Your task to perform on an android device: Set the phone to "Do not disturb". Image 0: 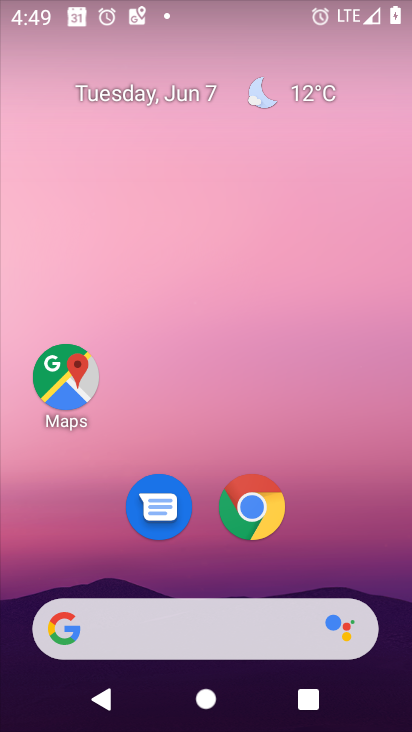
Step 0: drag from (330, 496) to (270, 20)
Your task to perform on an android device: Set the phone to "Do not disturb". Image 1: 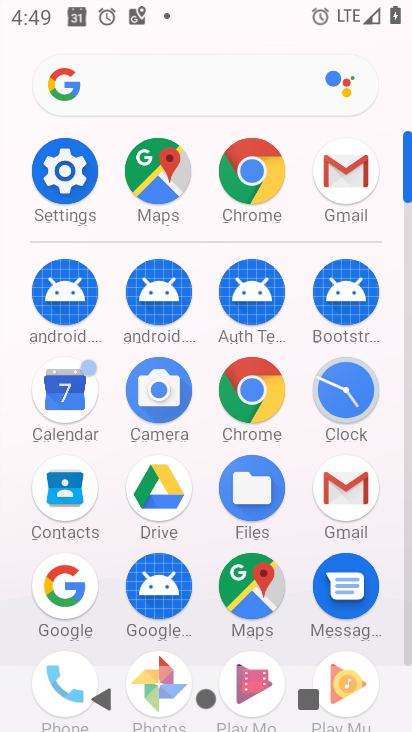
Step 1: drag from (14, 579) to (12, 206)
Your task to perform on an android device: Set the phone to "Do not disturb". Image 2: 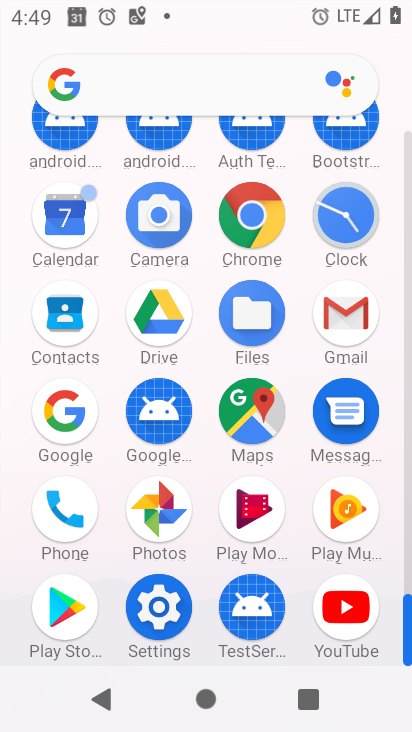
Step 2: click (161, 604)
Your task to perform on an android device: Set the phone to "Do not disturb". Image 3: 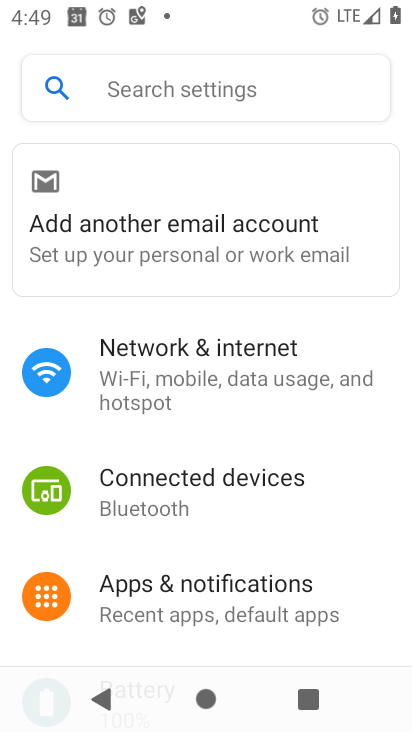
Step 3: drag from (250, 571) to (280, 193)
Your task to perform on an android device: Set the phone to "Do not disturb". Image 4: 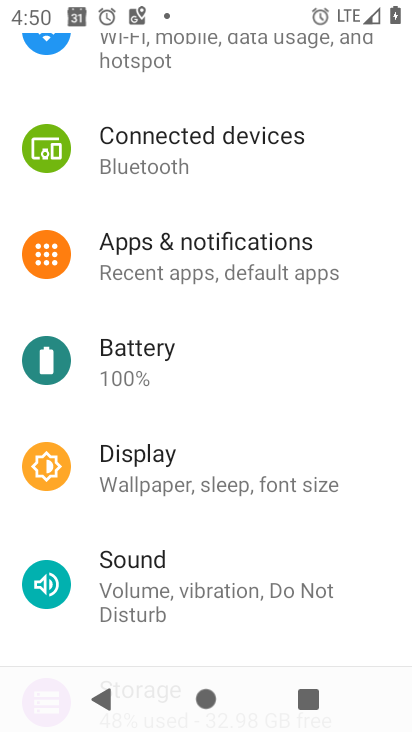
Step 4: drag from (288, 528) to (301, 183)
Your task to perform on an android device: Set the phone to "Do not disturb". Image 5: 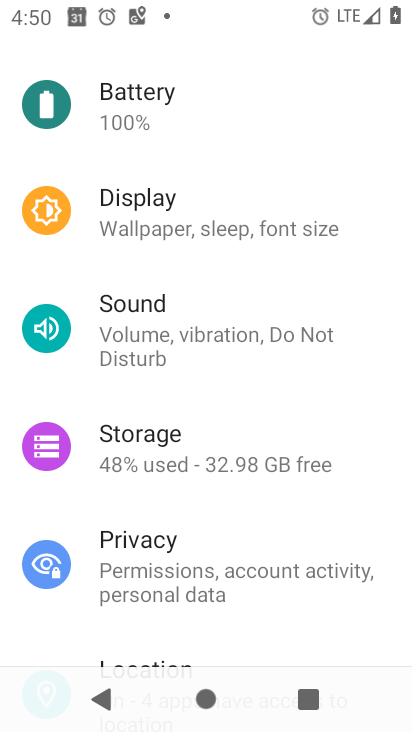
Step 5: drag from (244, 551) to (253, 179)
Your task to perform on an android device: Set the phone to "Do not disturb". Image 6: 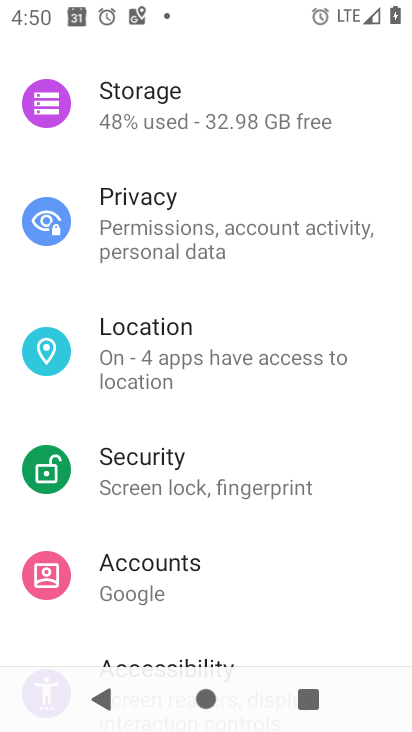
Step 6: drag from (224, 560) to (264, 197)
Your task to perform on an android device: Set the phone to "Do not disturb". Image 7: 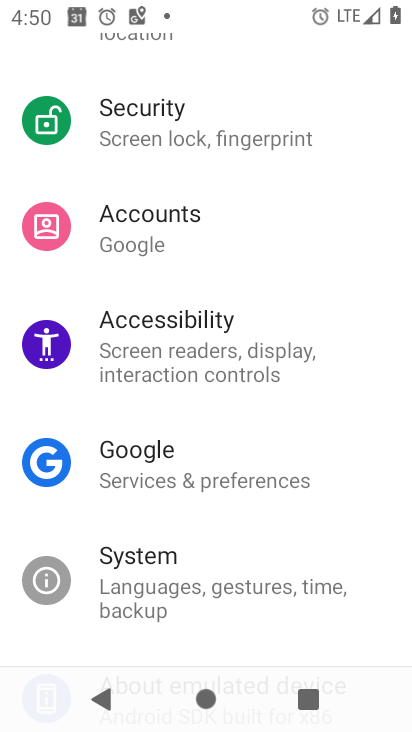
Step 7: drag from (268, 518) to (289, 209)
Your task to perform on an android device: Set the phone to "Do not disturb". Image 8: 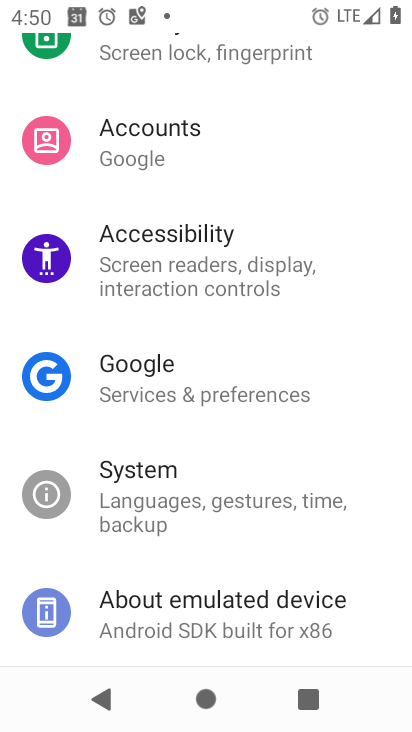
Step 8: drag from (285, 240) to (279, 621)
Your task to perform on an android device: Set the phone to "Do not disturb". Image 9: 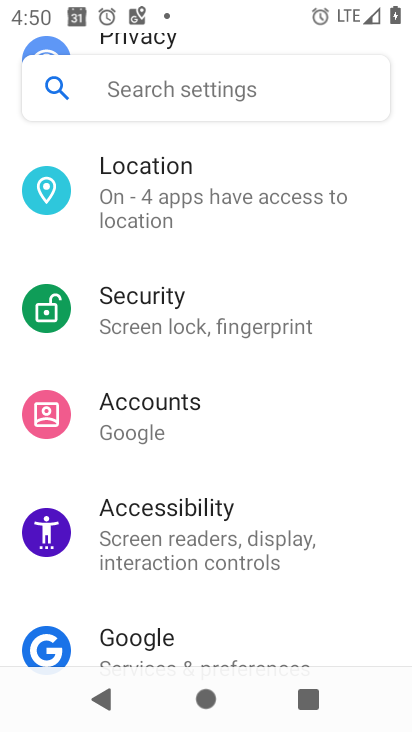
Step 9: drag from (273, 283) to (277, 584)
Your task to perform on an android device: Set the phone to "Do not disturb". Image 10: 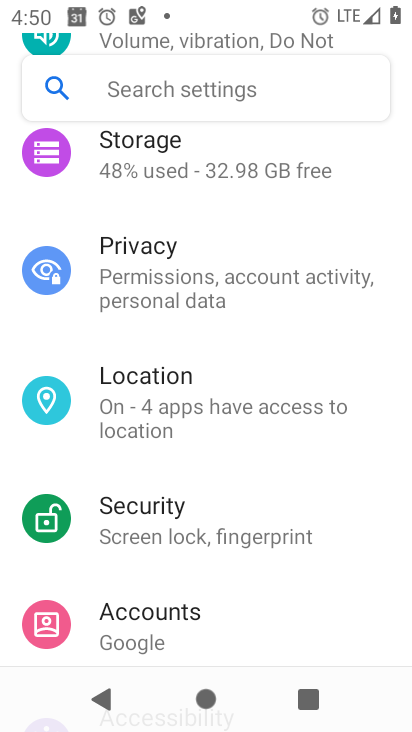
Step 10: drag from (252, 558) to (286, 211)
Your task to perform on an android device: Set the phone to "Do not disturb". Image 11: 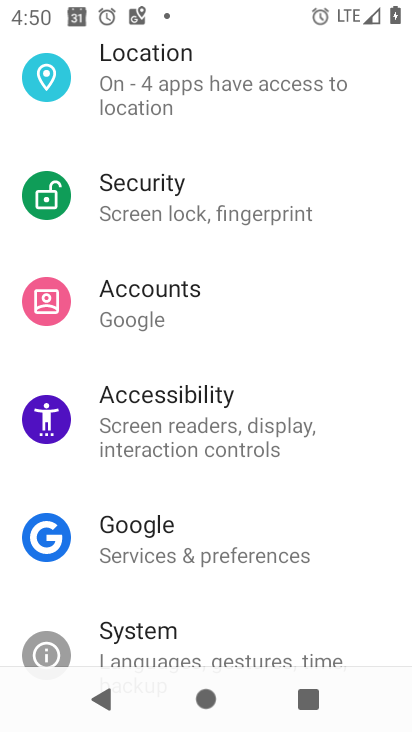
Step 11: drag from (258, 530) to (279, 213)
Your task to perform on an android device: Set the phone to "Do not disturb". Image 12: 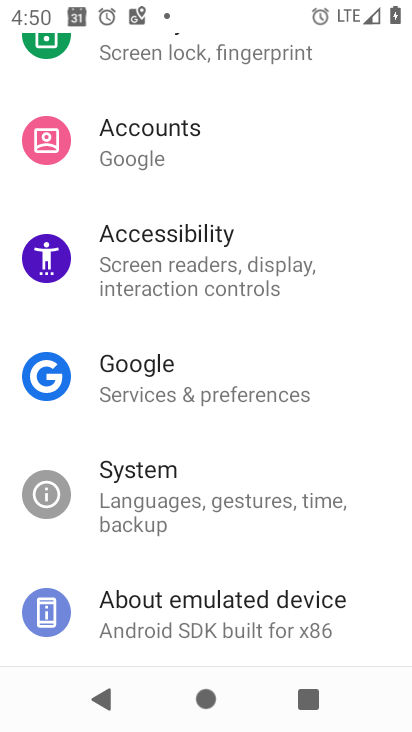
Step 12: drag from (264, 523) to (279, 235)
Your task to perform on an android device: Set the phone to "Do not disturb". Image 13: 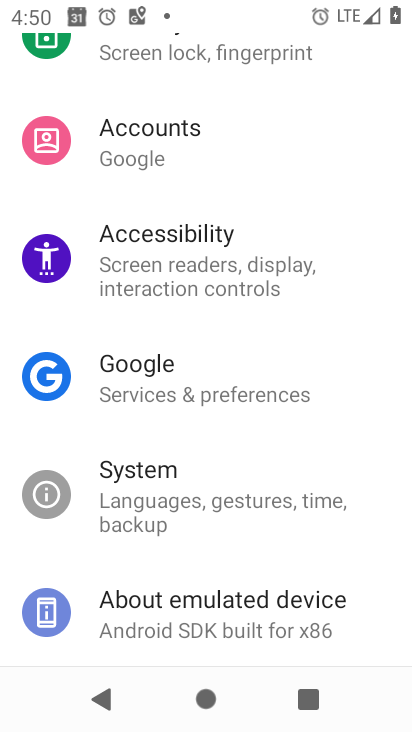
Step 13: drag from (277, 185) to (274, 568)
Your task to perform on an android device: Set the phone to "Do not disturb". Image 14: 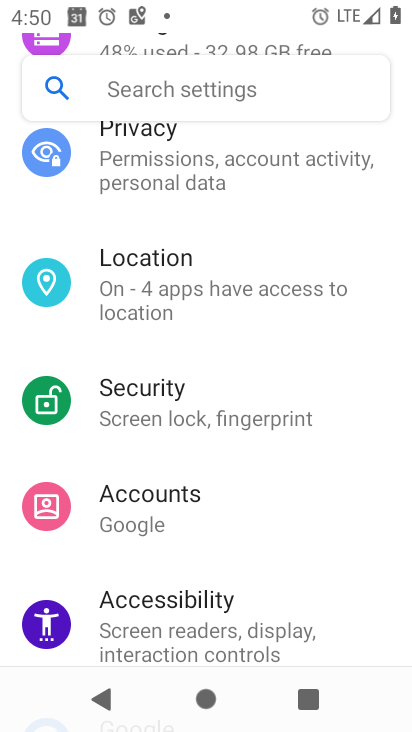
Step 14: drag from (251, 316) to (259, 627)
Your task to perform on an android device: Set the phone to "Do not disturb". Image 15: 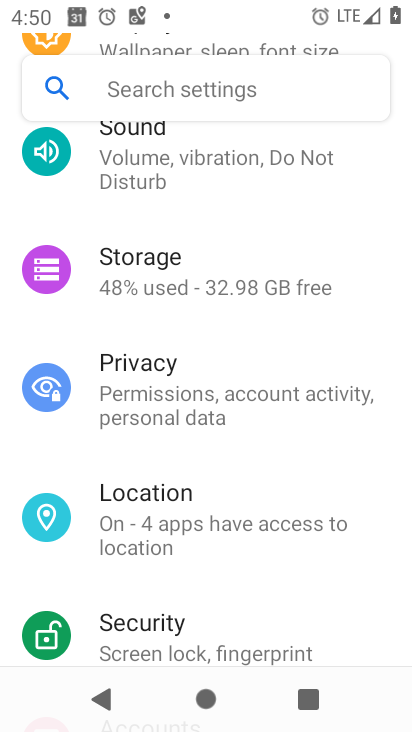
Step 15: drag from (273, 297) to (273, 605)
Your task to perform on an android device: Set the phone to "Do not disturb". Image 16: 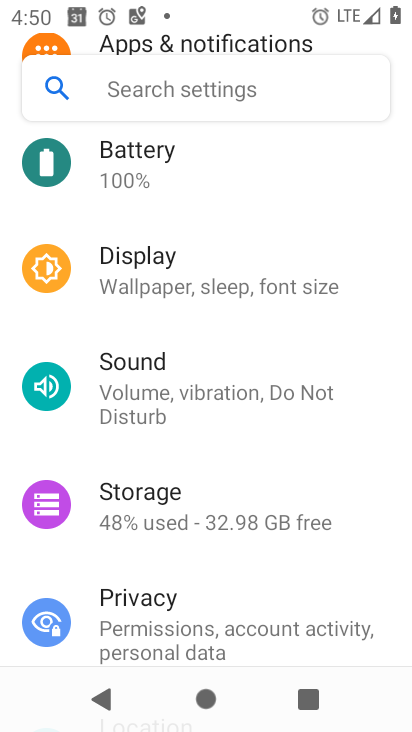
Step 16: click (230, 375)
Your task to perform on an android device: Set the phone to "Do not disturb". Image 17: 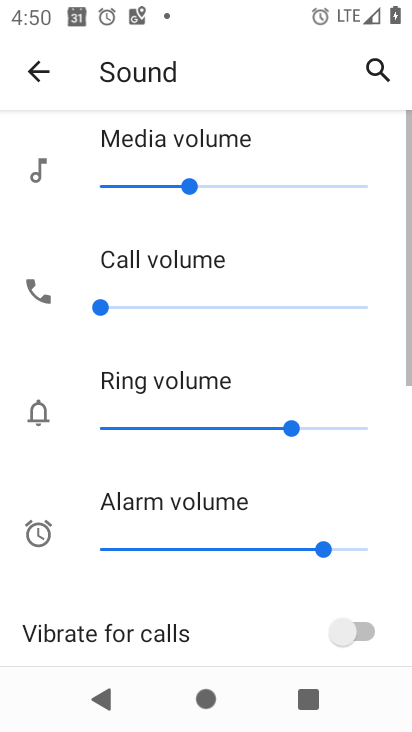
Step 17: drag from (221, 491) to (244, 164)
Your task to perform on an android device: Set the phone to "Do not disturb". Image 18: 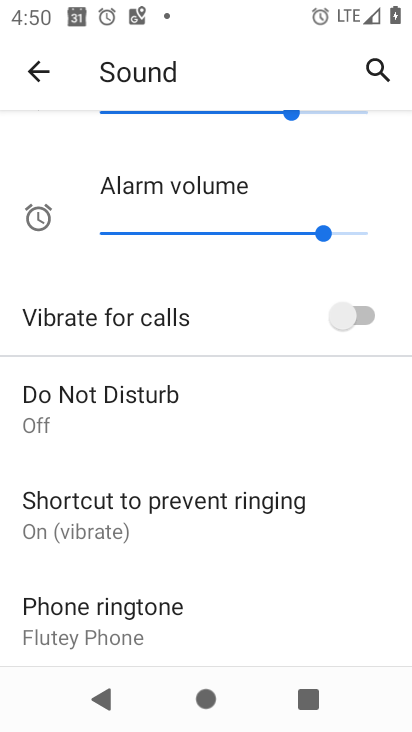
Step 18: drag from (221, 547) to (232, 315)
Your task to perform on an android device: Set the phone to "Do not disturb". Image 19: 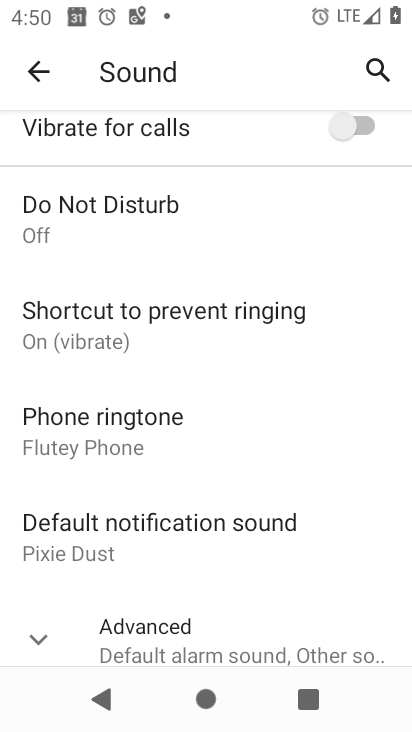
Step 19: click (153, 196)
Your task to perform on an android device: Set the phone to "Do not disturb". Image 20: 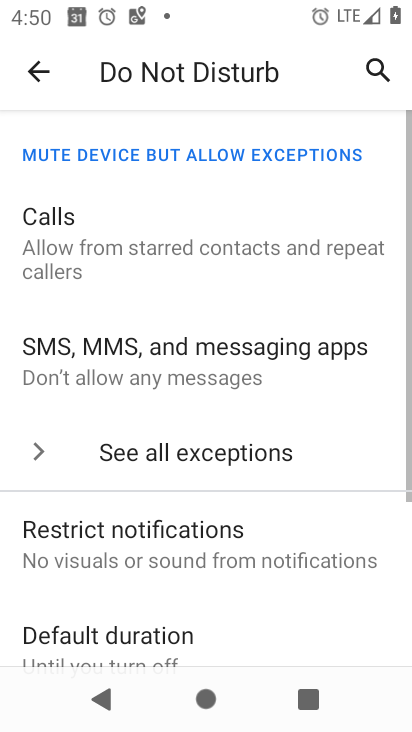
Step 20: drag from (273, 568) to (275, 173)
Your task to perform on an android device: Set the phone to "Do not disturb". Image 21: 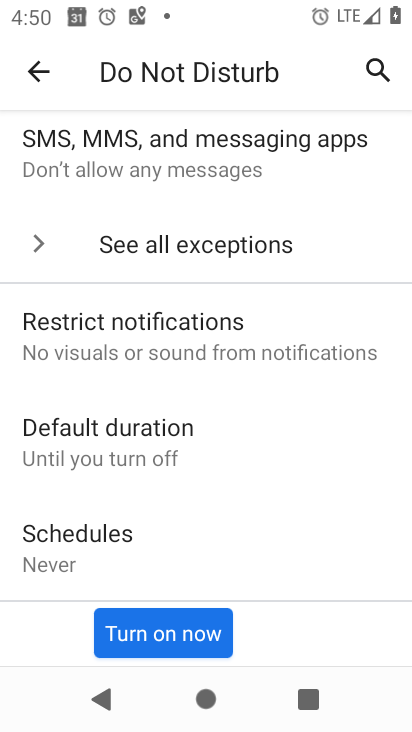
Step 21: click (171, 637)
Your task to perform on an android device: Set the phone to "Do not disturb". Image 22: 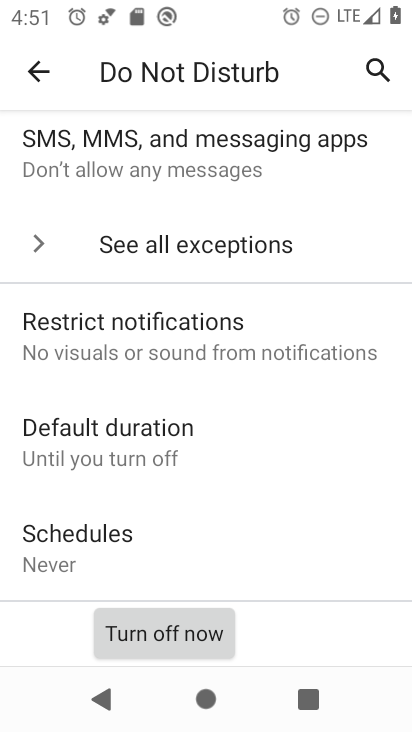
Step 22: task complete